Your task to perform on an android device: remove spam from my inbox in the gmail app Image 0: 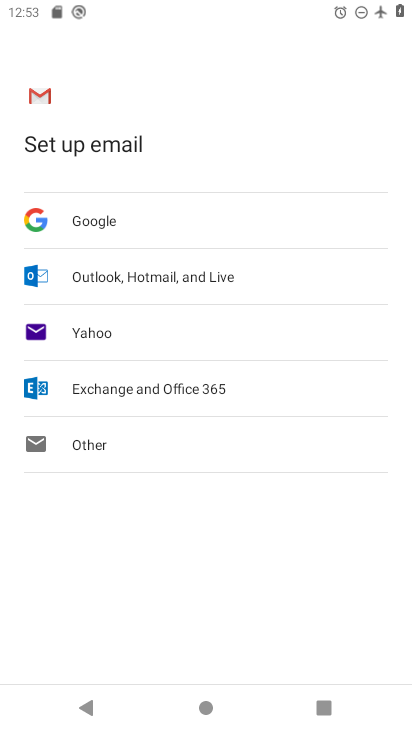
Step 0: press home button
Your task to perform on an android device: remove spam from my inbox in the gmail app Image 1: 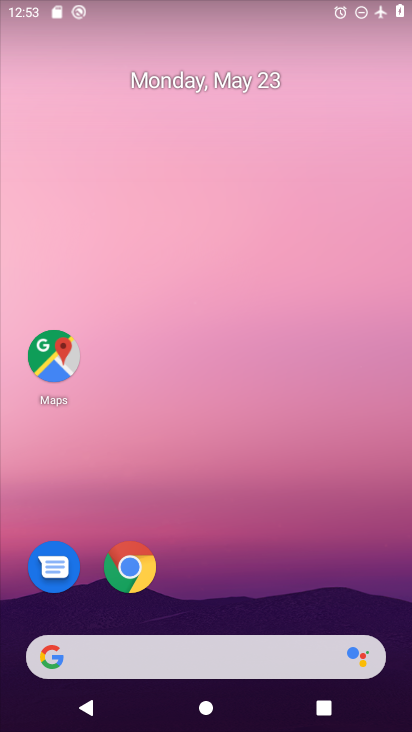
Step 1: drag from (278, 574) to (266, 45)
Your task to perform on an android device: remove spam from my inbox in the gmail app Image 2: 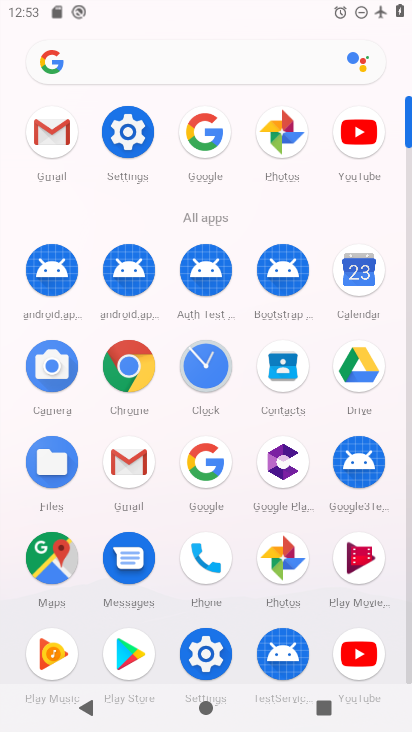
Step 2: click (131, 447)
Your task to perform on an android device: remove spam from my inbox in the gmail app Image 3: 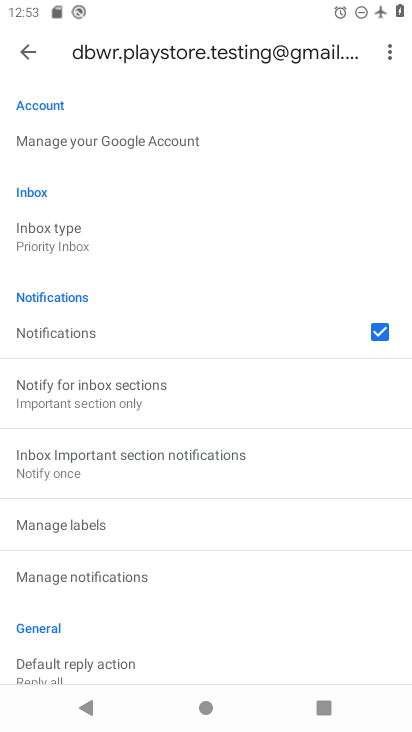
Step 3: drag from (174, 226) to (196, 511)
Your task to perform on an android device: remove spam from my inbox in the gmail app Image 4: 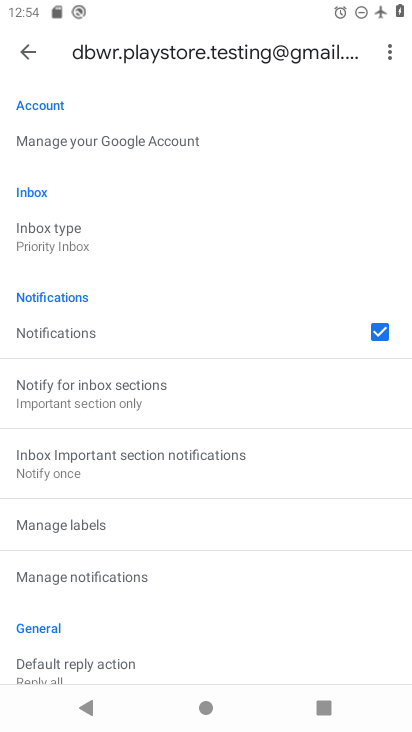
Step 4: click (20, 45)
Your task to perform on an android device: remove spam from my inbox in the gmail app Image 5: 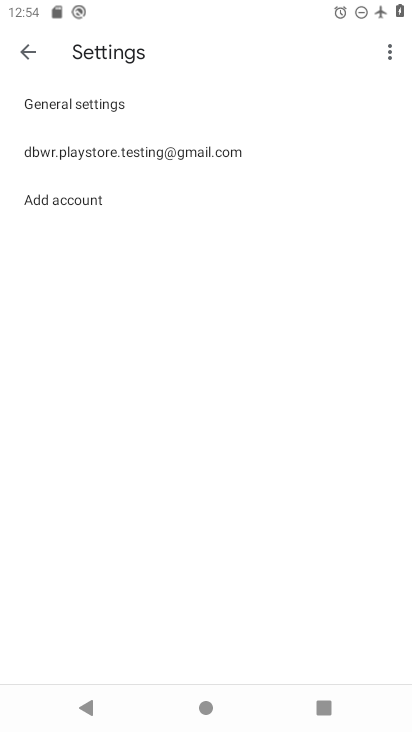
Step 5: click (65, 145)
Your task to perform on an android device: remove spam from my inbox in the gmail app Image 6: 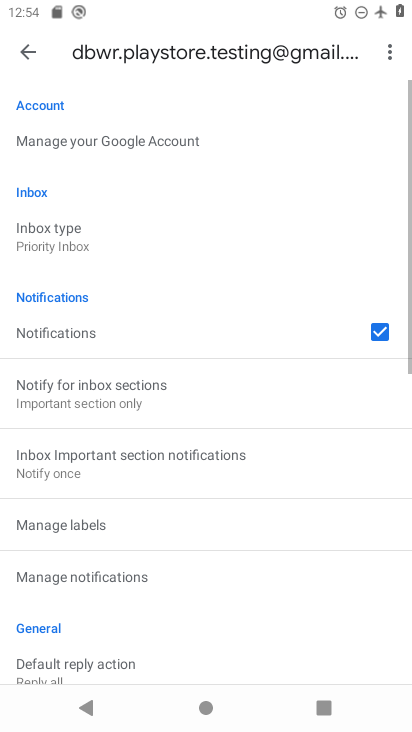
Step 6: click (23, 45)
Your task to perform on an android device: remove spam from my inbox in the gmail app Image 7: 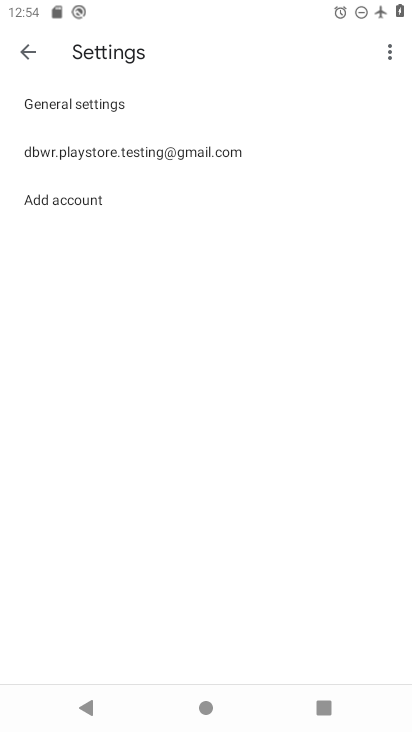
Step 7: click (23, 45)
Your task to perform on an android device: remove spam from my inbox in the gmail app Image 8: 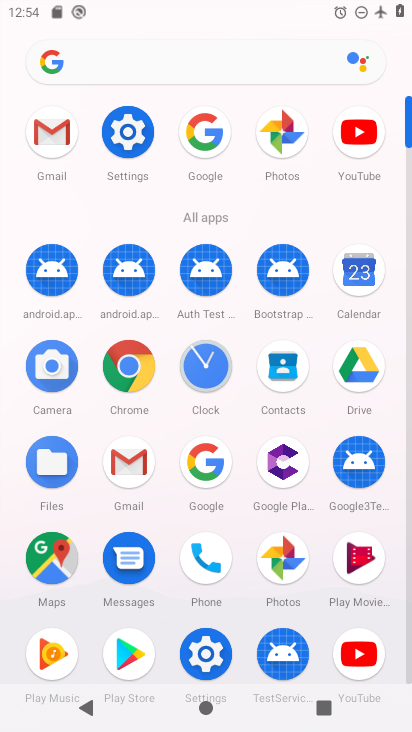
Step 8: click (67, 138)
Your task to perform on an android device: remove spam from my inbox in the gmail app Image 9: 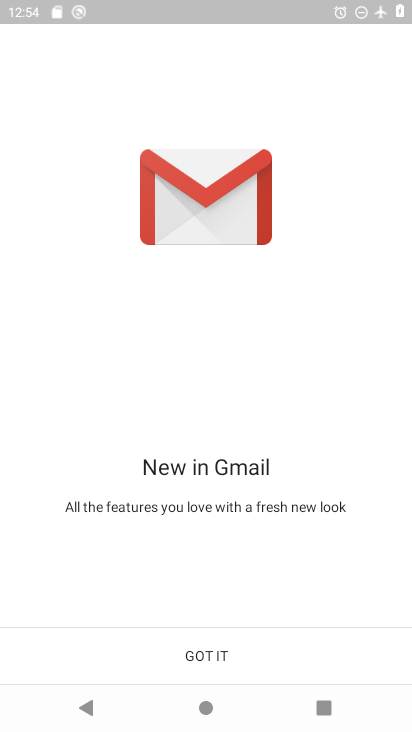
Step 9: click (241, 659)
Your task to perform on an android device: remove spam from my inbox in the gmail app Image 10: 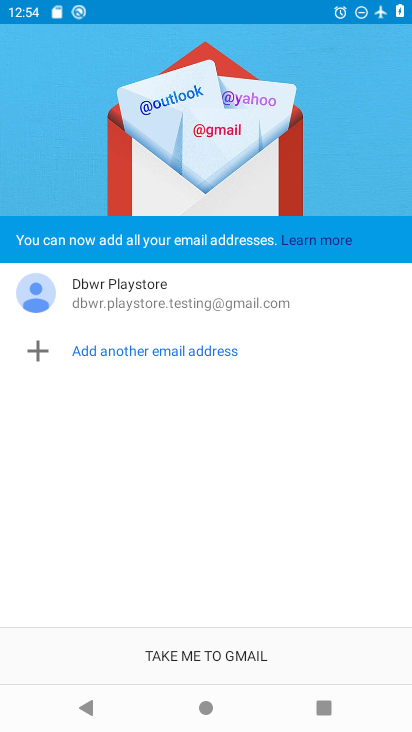
Step 10: click (242, 658)
Your task to perform on an android device: remove spam from my inbox in the gmail app Image 11: 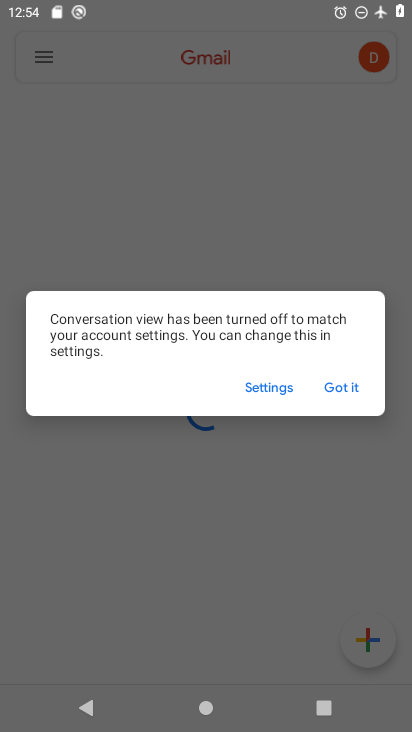
Step 11: click (343, 380)
Your task to perform on an android device: remove spam from my inbox in the gmail app Image 12: 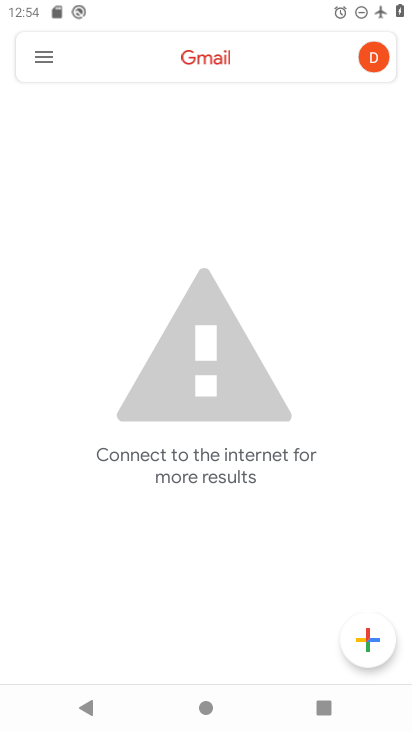
Step 12: click (37, 48)
Your task to perform on an android device: remove spam from my inbox in the gmail app Image 13: 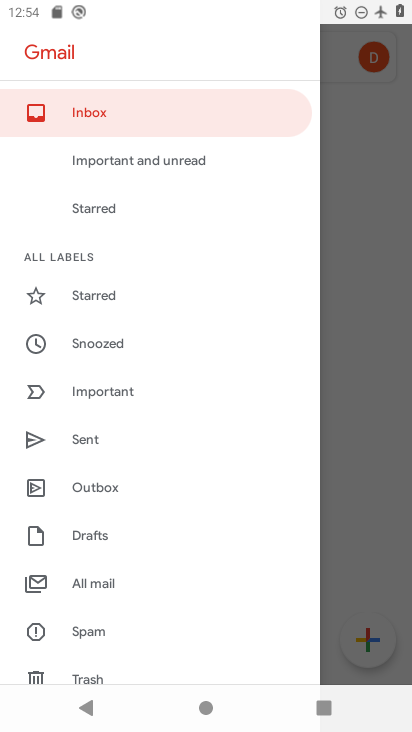
Step 13: click (109, 628)
Your task to perform on an android device: remove spam from my inbox in the gmail app Image 14: 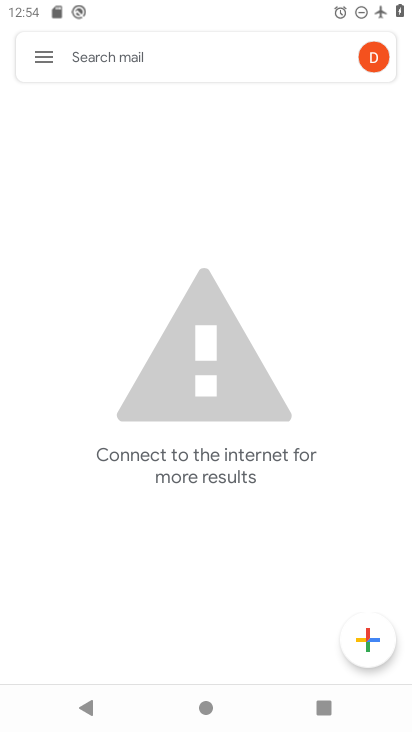
Step 14: task complete